Your task to perform on an android device: What is the news today? Image 0: 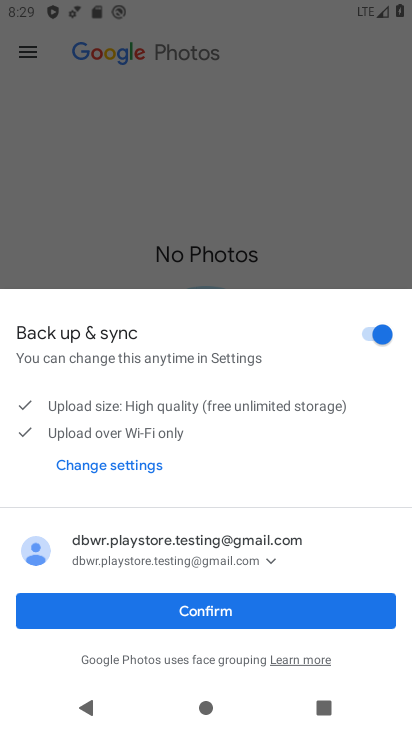
Step 0: click (224, 612)
Your task to perform on an android device: What is the news today? Image 1: 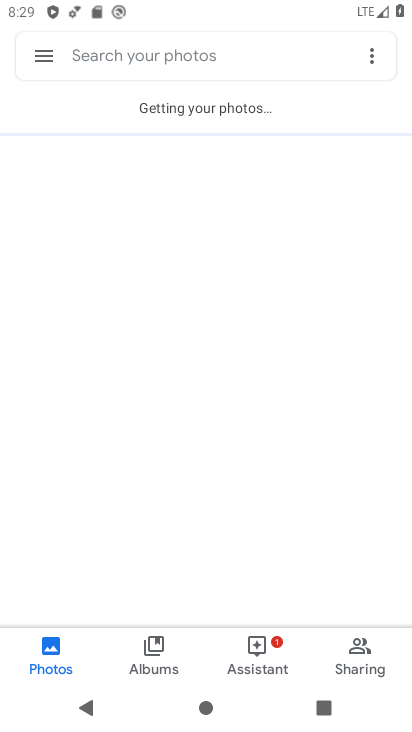
Step 1: task complete